Your task to perform on an android device: set the stopwatch Image 0: 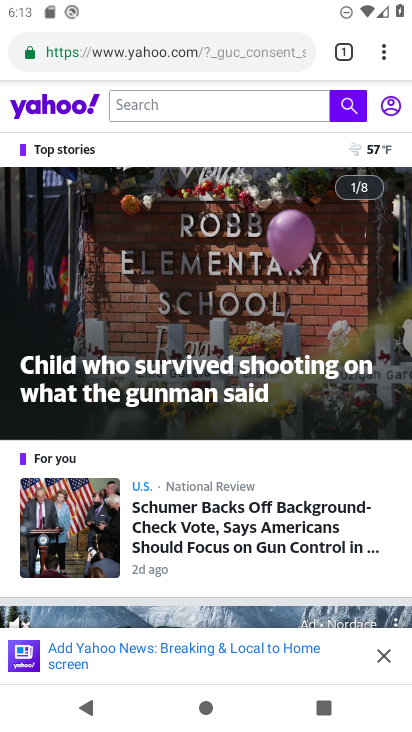
Step 0: press home button
Your task to perform on an android device: set the stopwatch Image 1: 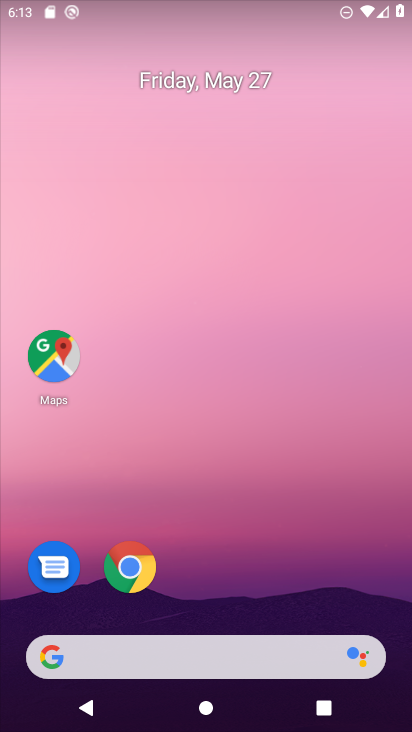
Step 1: drag from (225, 583) to (186, 1)
Your task to perform on an android device: set the stopwatch Image 2: 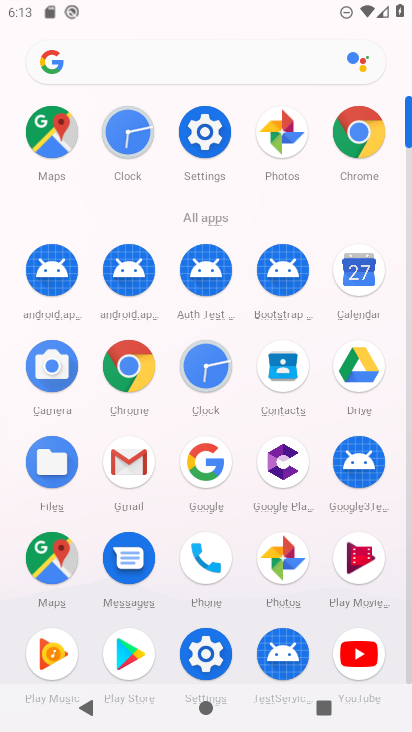
Step 2: click (208, 374)
Your task to perform on an android device: set the stopwatch Image 3: 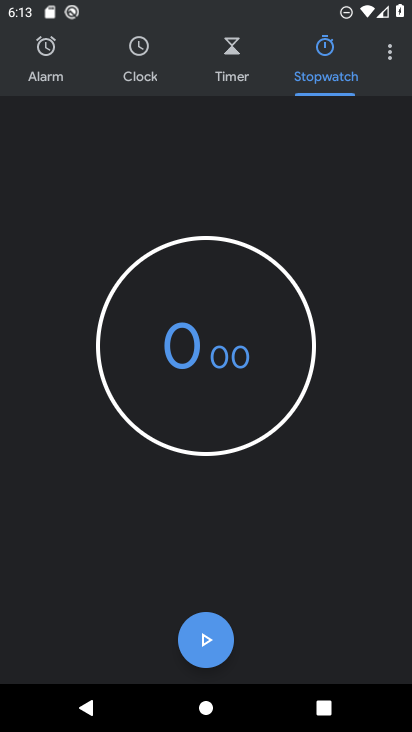
Step 3: click (209, 638)
Your task to perform on an android device: set the stopwatch Image 4: 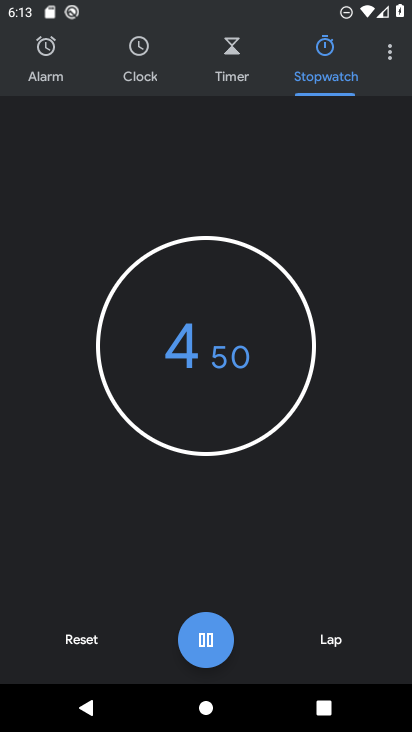
Step 4: click (202, 639)
Your task to perform on an android device: set the stopwatch Image 5: 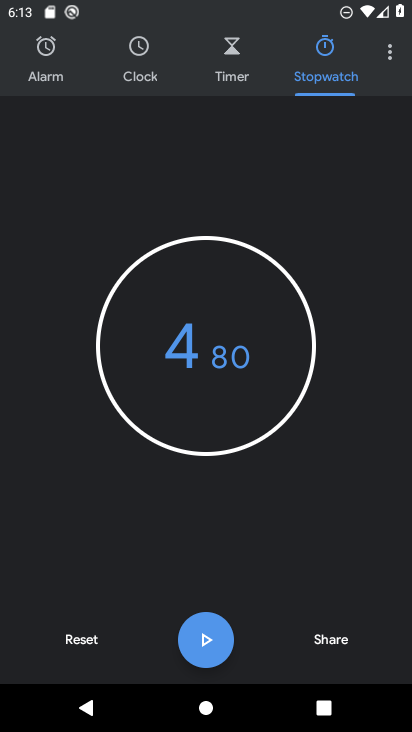
Step 5: task complete